Your task to perform on an android device: check android version Image 0: 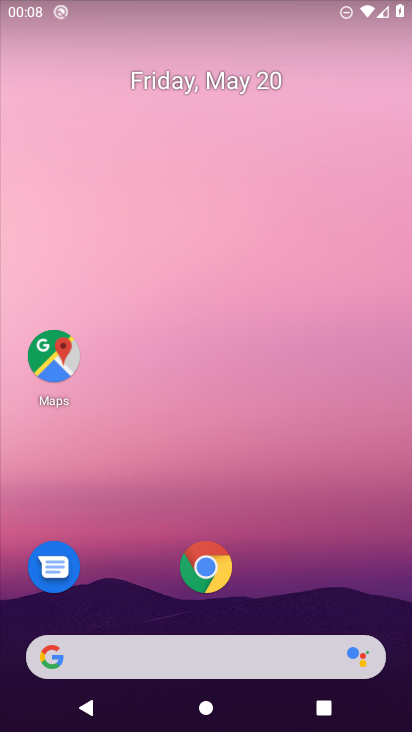
Step 0: press home button
Your task to perform on an android device: check android version Image 1: 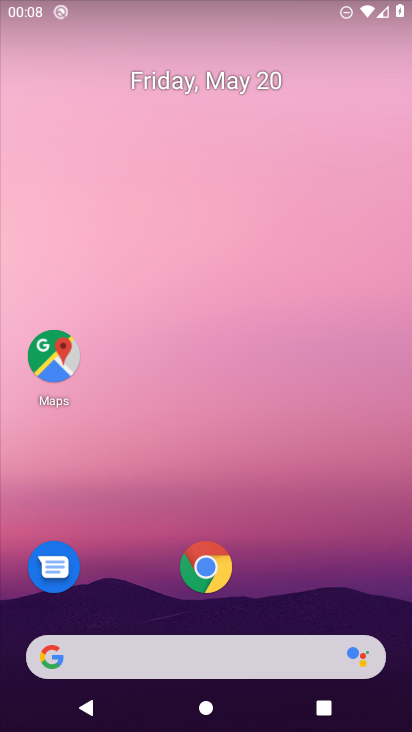
Step 1: drag from (264, 614) to (354, 2)
Your task to perform on an android device: check android version Image 2: 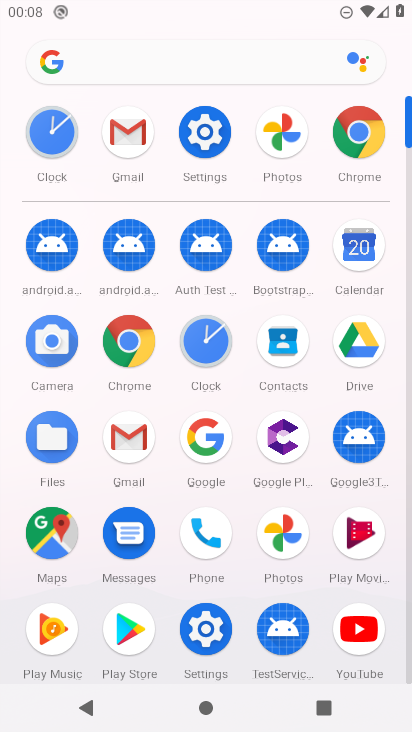
Step 2: click (201, 130)
Your task to perform on an android device: check android version Image 3: 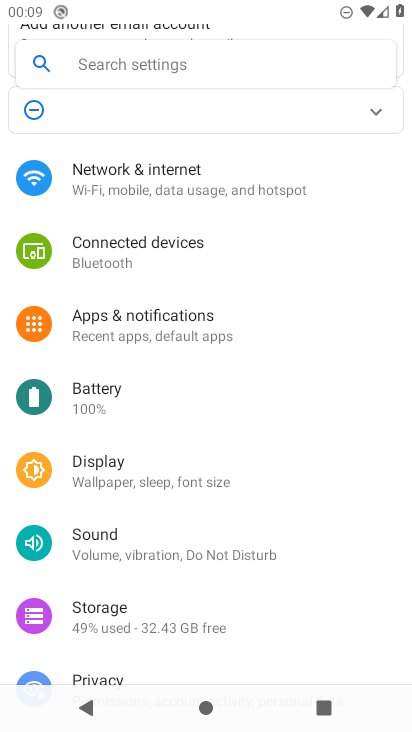
Step 3: drag from (186, 591) to (252, 55)
Your task to perform on an android device: check android version Image 4: 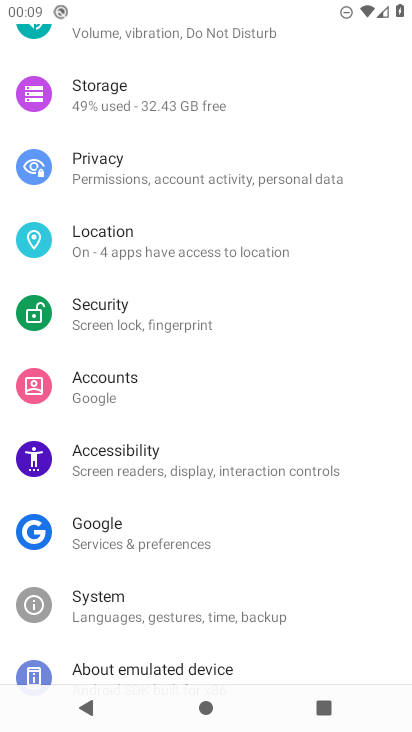
Step 4: drag from (172, 612) to (236, 109)
Your task to perform on an android device: check android version Image 5: 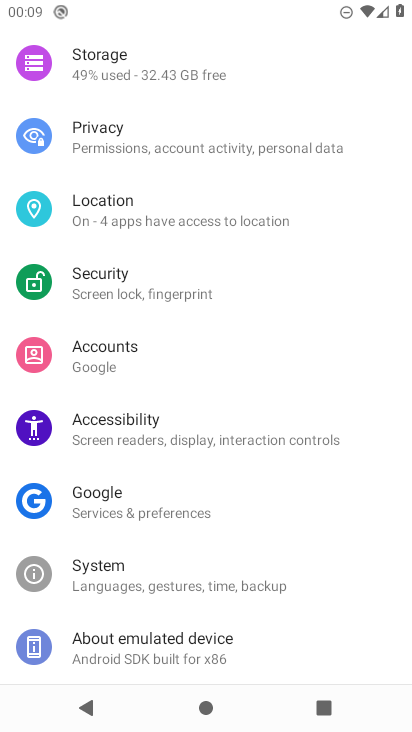
Step 5: click (250, 663)
Your task to perform on an android device: check android version Image 6: 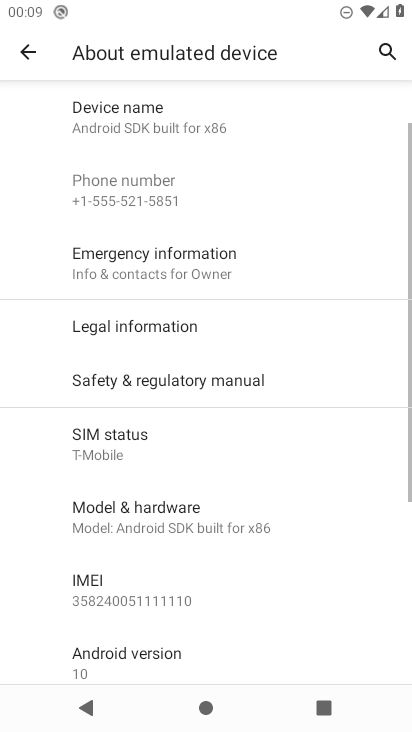
Step 6: click (151, 663)
Your task to perform on an android device: check android version Image 7: 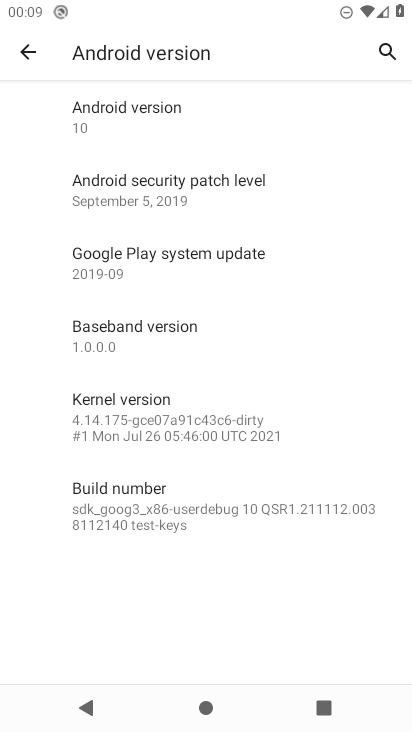
Step 7: task complete